Your task to perform on an android device: open a bookmark in the chrome app Image 0: 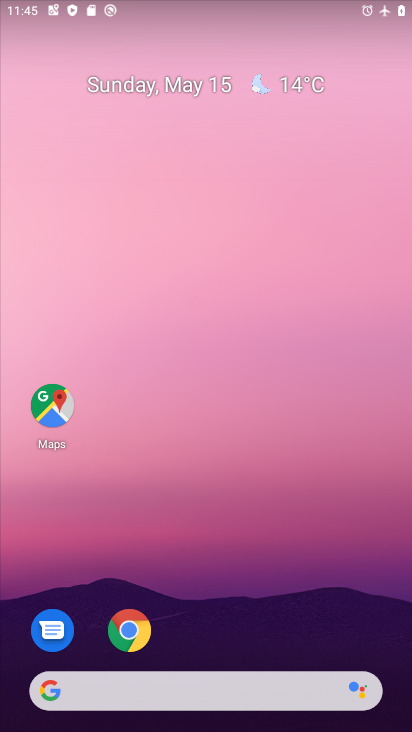
Step 0: click (128, 631)
Your task to perform on an android device: open a bookmark in the chrome app Image 1: 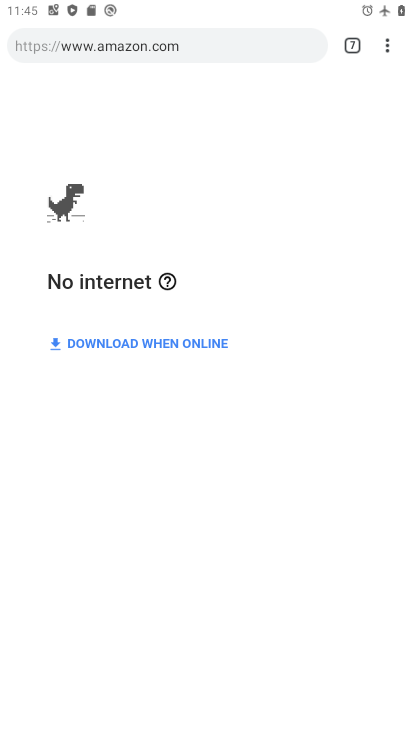
Step 1: click (388, 52)
Your task to perform on an android device: open a bookmark in the chrome app Image 2: 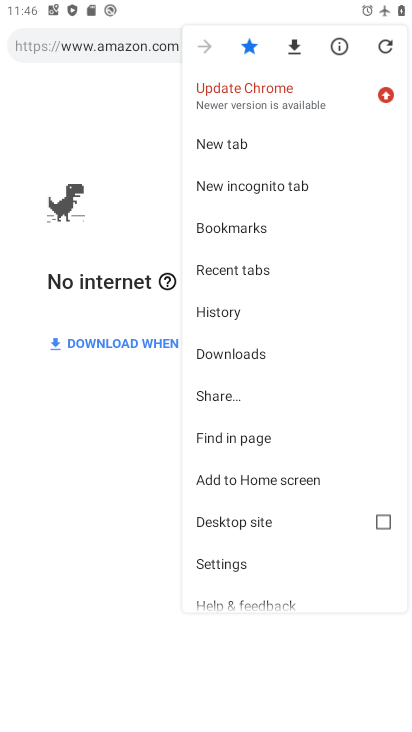
Step 2: click (222, 226)
Your task to perform on an android device: open a bookmark in the chrome app Image 3: 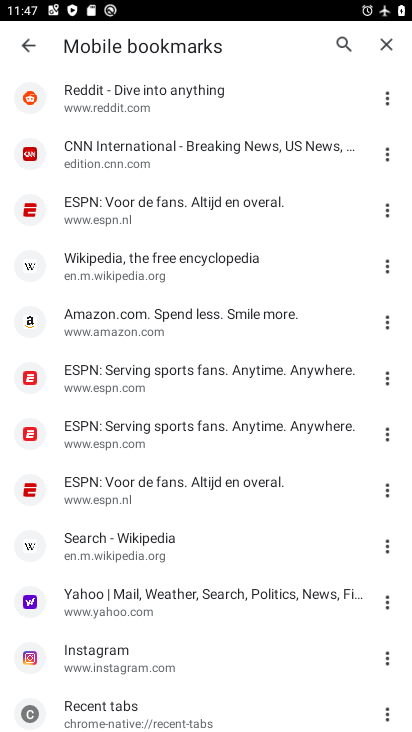
Step 3: click (131, 197)
Your task to perform on an android device: open a bookmark in the chrome app Image 4: 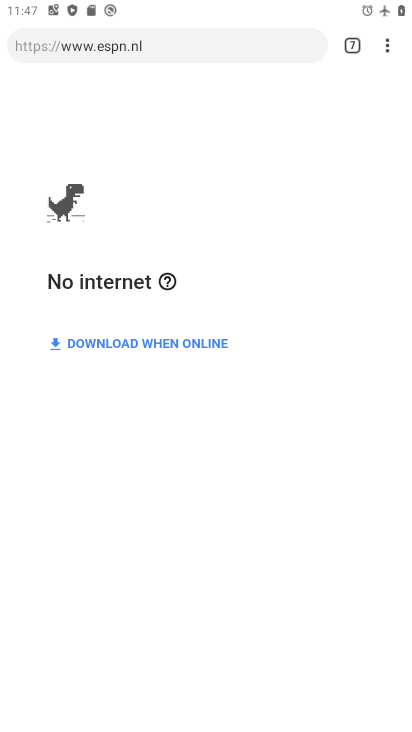
Step 4: click (120, 199)
Your task to perform on an android device: open a bookmark in the chrome app Image 5: 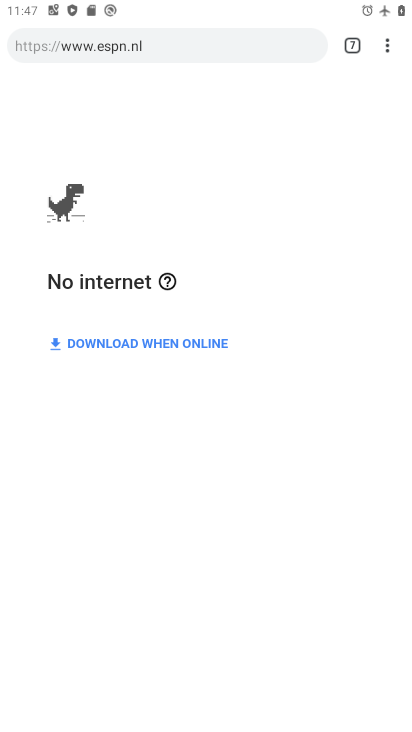
Step 5: task complete